Your task to perform on an android device: Open Google Maps and go to "Timeline" Image 0: 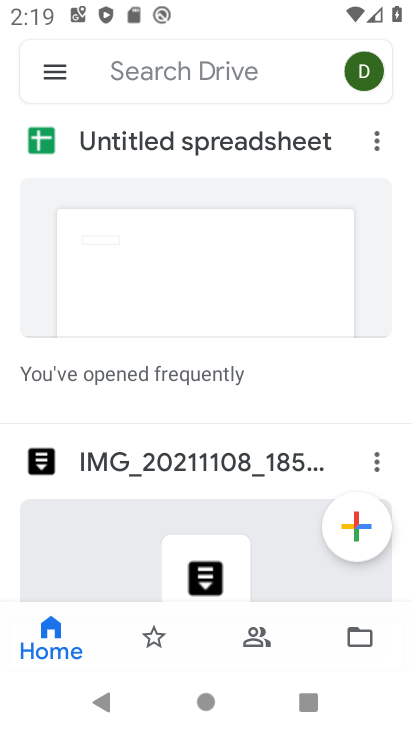
Step 0: press home button
Your task to perform on an android device: Open Google Maps and go to "Timeline" Image 1: 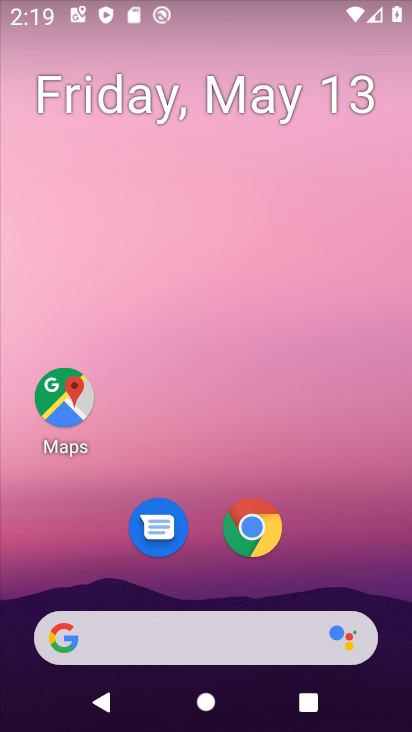
Step 1: click (63, 387)
Your task to perform on an android device: Open Google Maps and go to "Timeline" Image 2: 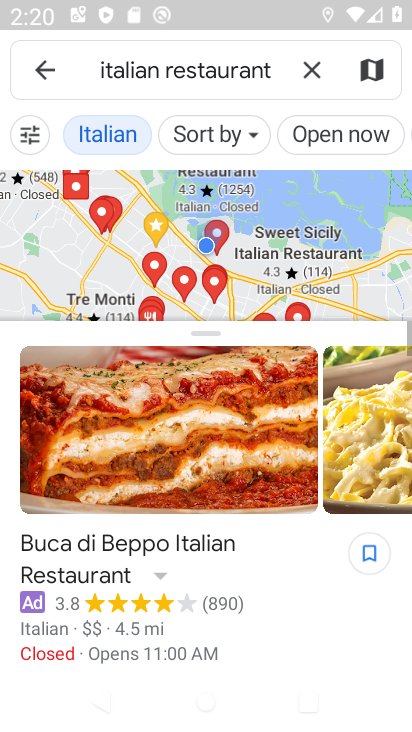
Step 2: click (36, 73)
Your task to perform on an android device: Open Google Maps and go to "Timeline" Image 3: 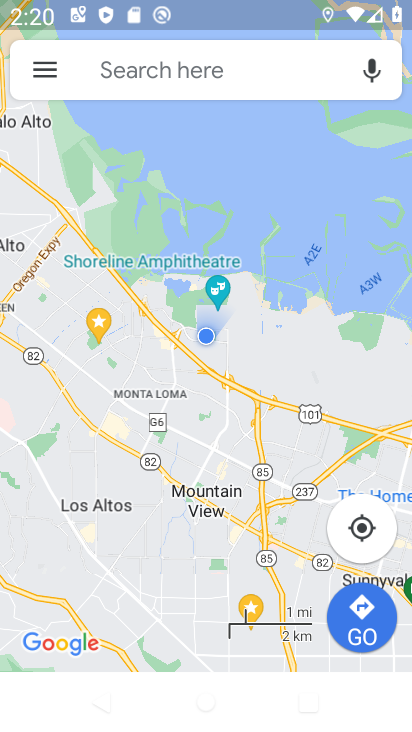
Step 3: click (36, 73)
Your task to perform on an android device: Open Google Maps and go to "Timeline" Image 4: 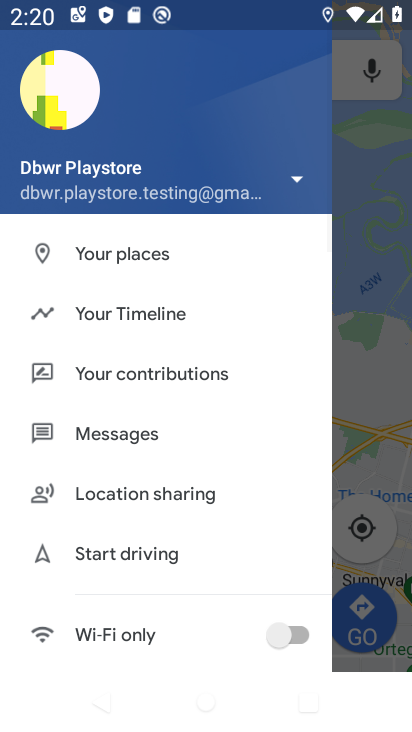
Step 4: click (159, 306)
Your task to perform on an android device: Open Google Maps and go to "Timeline" Image 5: 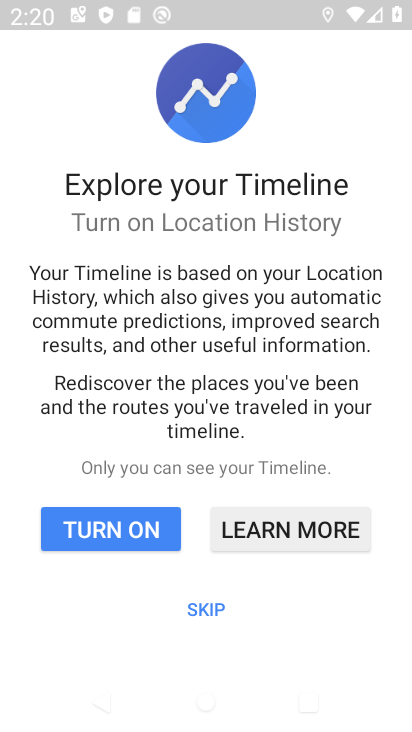
Step 5: click (196, 611)
Your task to perform on an android device: Open Google Maps and go to "Timeline" Image 6: 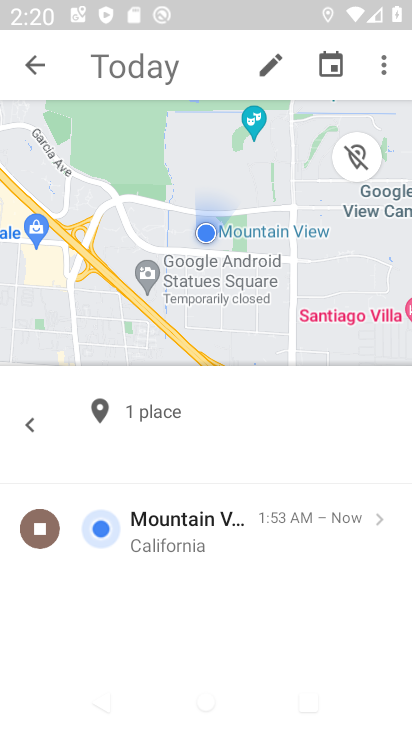
Step 6: click (47, 69)
Your task to perform on an android device: Open Google Maps and go to "Timeline" Image 7: 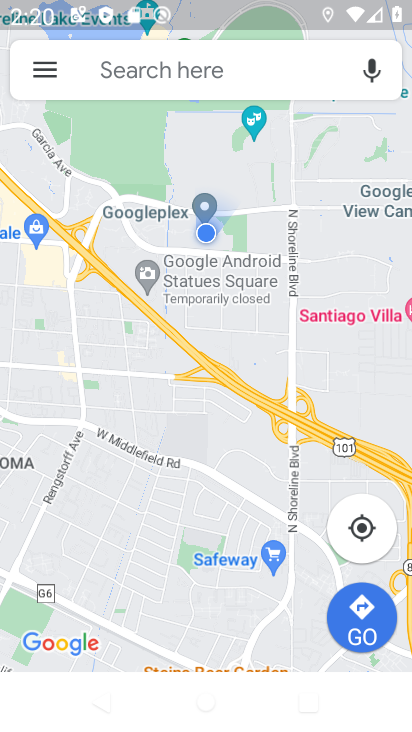
Step 7: click (47, 69)
Your task to perform on an android device: Open Google Maps and go to "Timeline" Image 8: 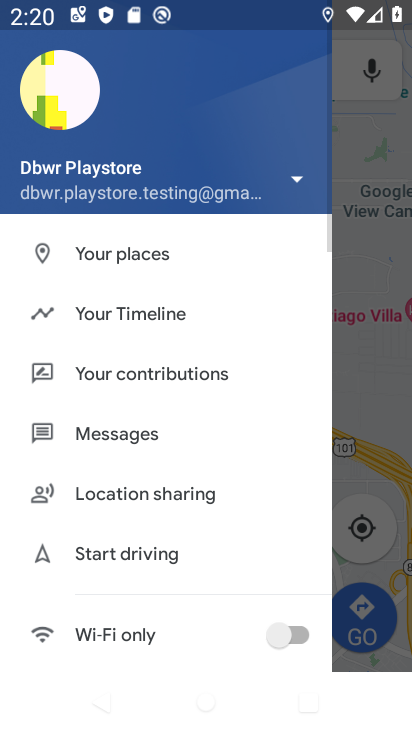
Step 8: click (131, 325)
Your task to perform on an android device: Open Google Maps and go to "Timeline" Image 9: 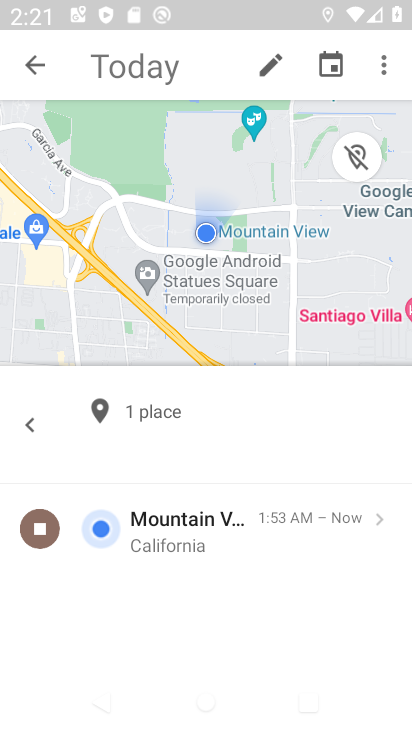
Step 9: task complete